Your task to perform on an android device: delete a single message in the gmail app Image 0: 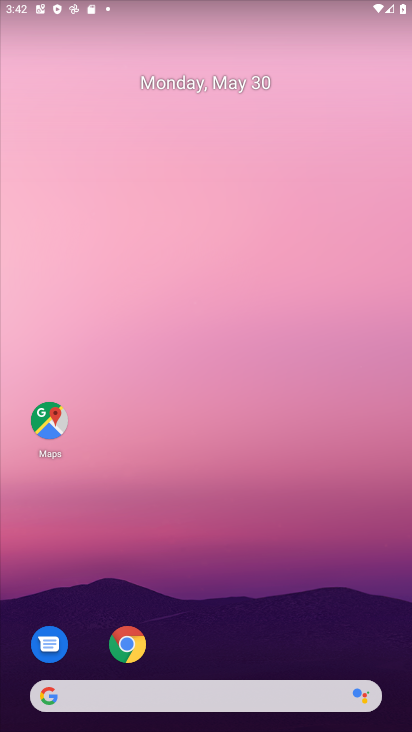
Step 0: drag from (275, 644) to (224, 193)
Your task to perform on an android device: delete a single message in the gmail app Image 1: 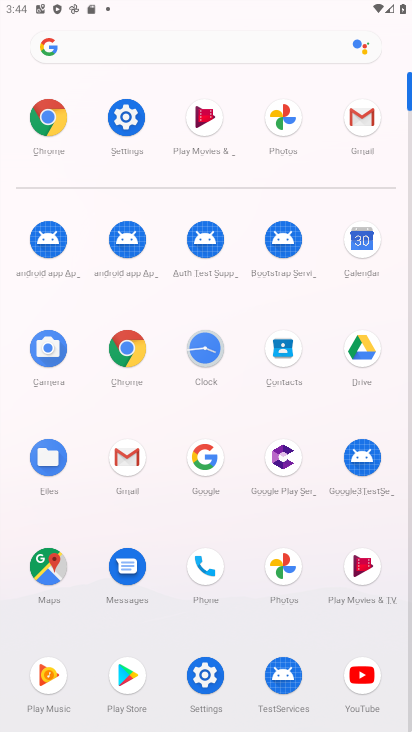
Step 1: click (369, 131)
Your task to perform on an android device: delete a single message in the gmail app Image 2: 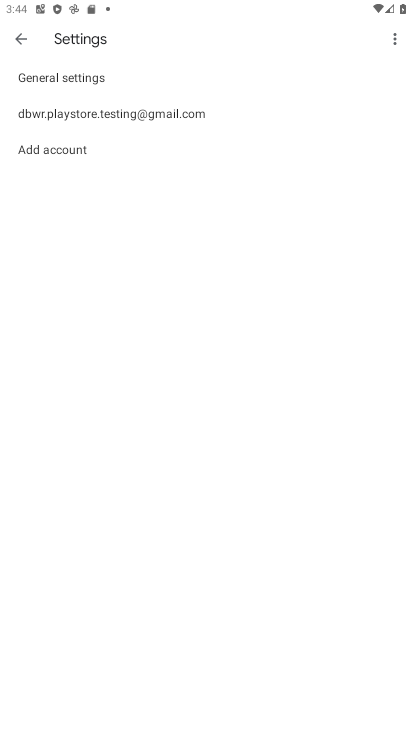
Step 2: task complete